Your task to perform on an android device: Open Google Chrome and open the bookmarks view Image 0: 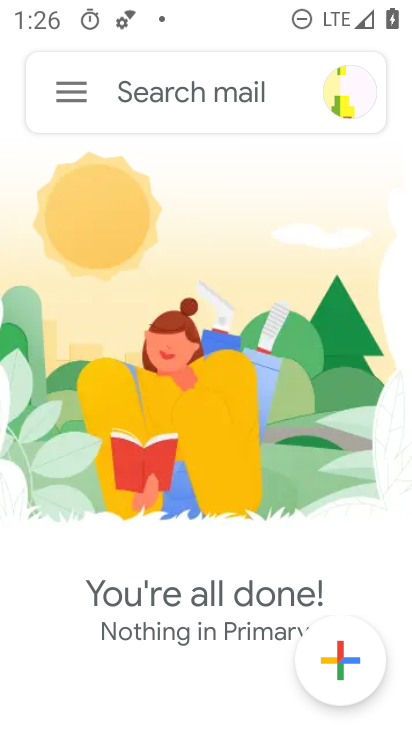
Step 0: press home button
Your task to perform on an android device: Open Google Chrome and open the bookmarks view Image 1: 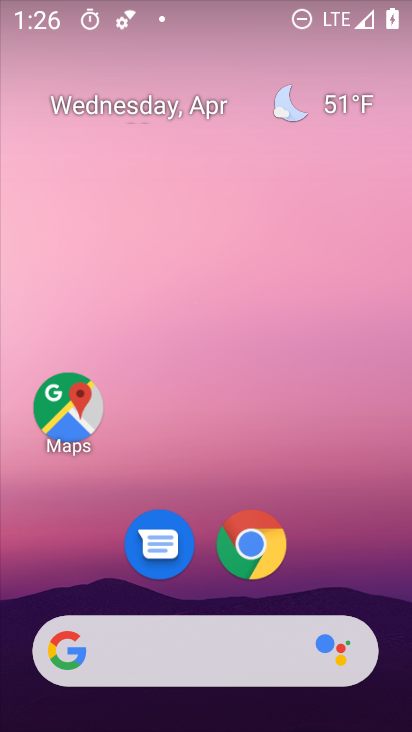
Step 1: drag from (339, 573) to (357, 135)
Your task to perform on an android device: Open Google Chrome and open the bookmarks view Image 2: 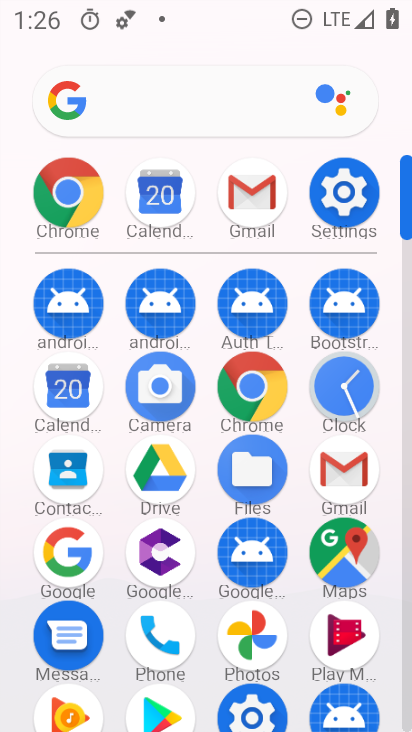
Step 2: click (248, 393)
Your task to perform on an android device: Open Google Chrome and open the bookmarks view Image 3: 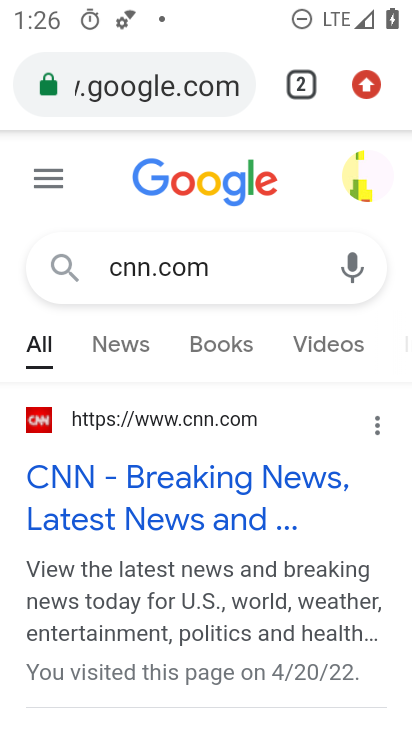
Step 3: click (370, 92)
Your task to perform on an android device: Open Google Chrome and open the bookmarks view Image 4: 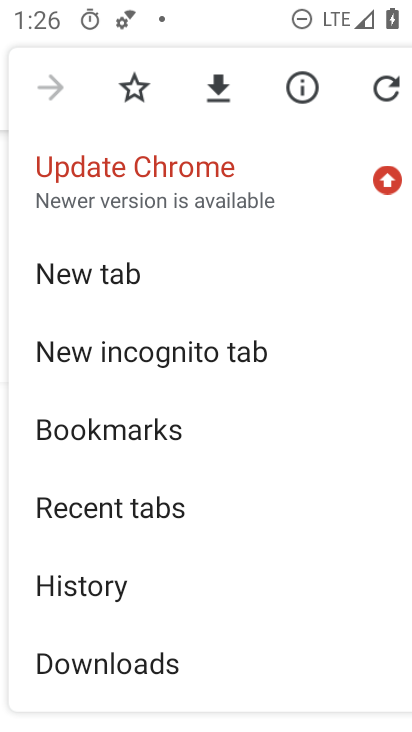
Step 4: click (164, 424)
Your task to perform on an android device: Open Google Chrome and open the bookmarks view Image 5: 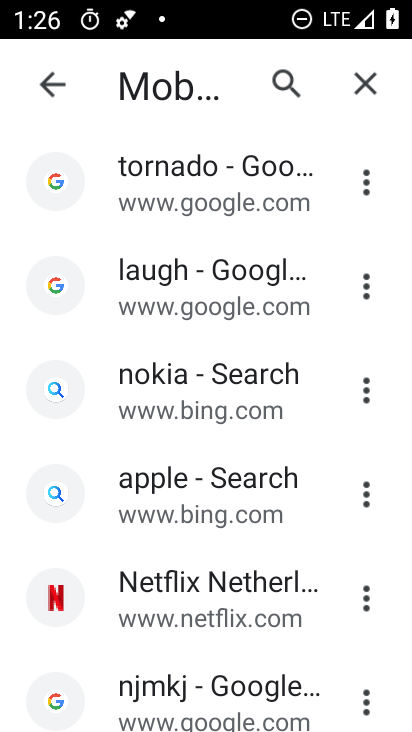
Step 5: task complete